Your task to perform on an android device: clear all cookies in the chrome app Image 0: 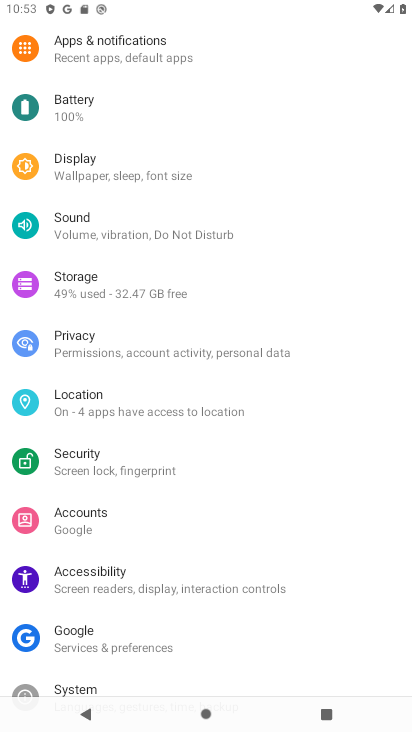
Step 0: press home button
Your task to perform on an android device: clear all cookies in the chrome app Image 1: 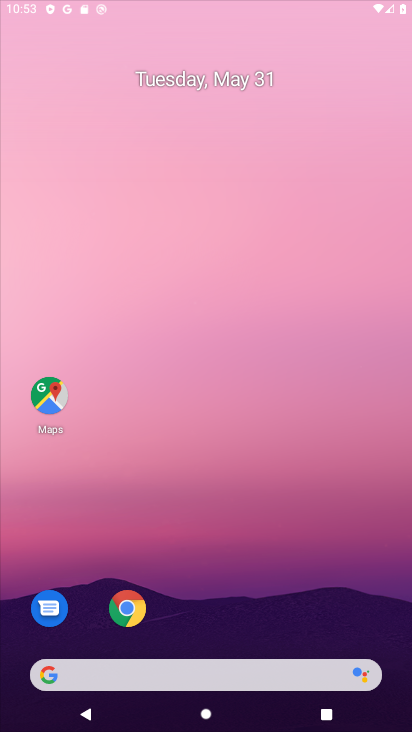
Step 1: drag from (281, 618) to (358, 85)
Your task to perform on an android device: clear all cookies in the chrome app Image 2: 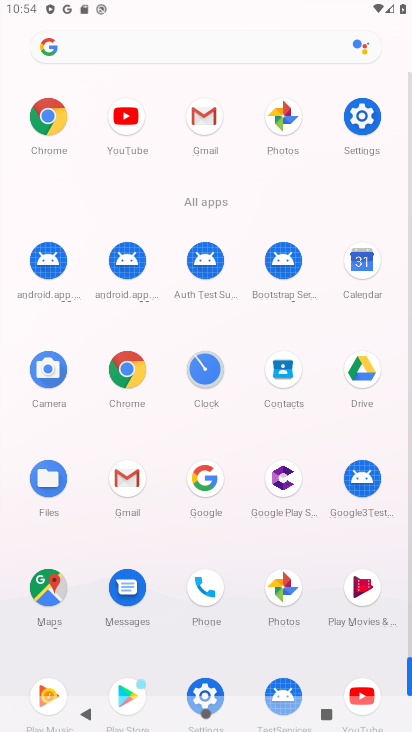
Step 2: click (54, 121)
Your task to perform on an android device: clear all cookies in the chrome app Image 3: 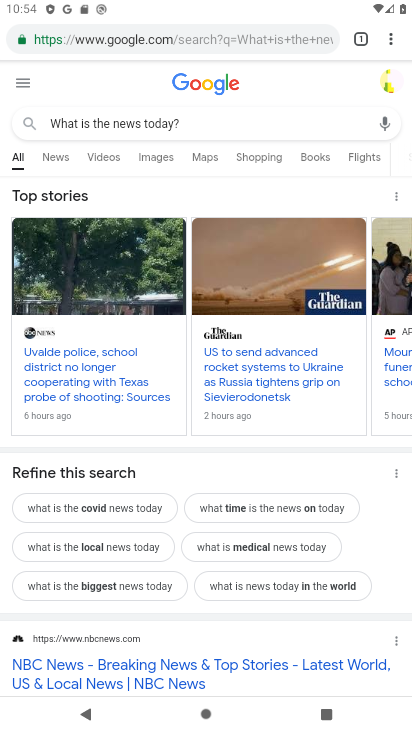
Step 3: drag from (379, 46) to (284, 431)
Your task to perform on an android device: clear all cookies in the chrome app Image 4: 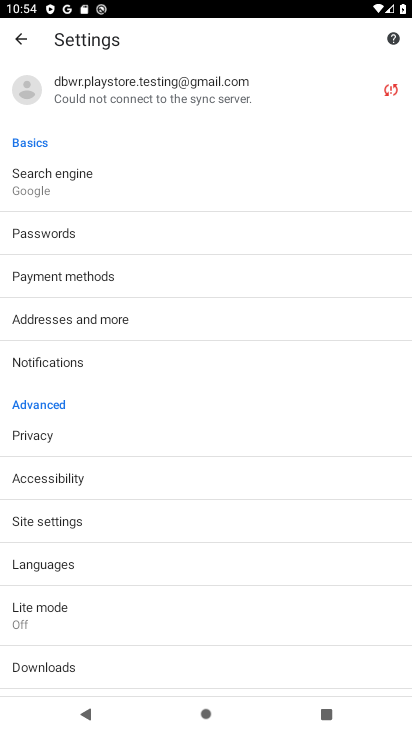
Step 4: click (210, 438)
Your task to perform on an android device: clear all cookies in the chrome app Image 5: 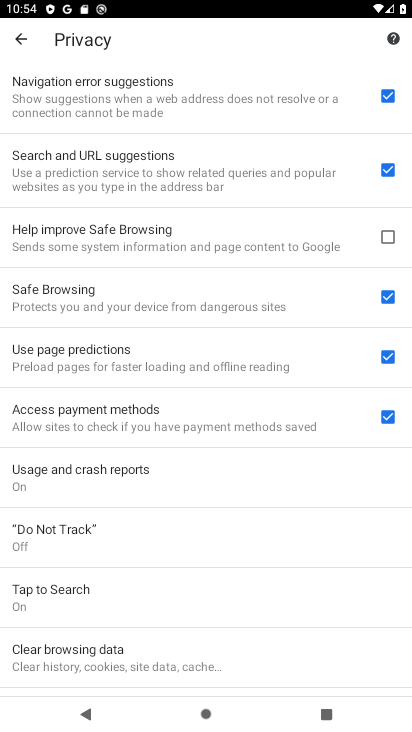
Step 5: click (203, 650)
Your task to perform on an android device: clear all cookies in the chrome app Image 6: 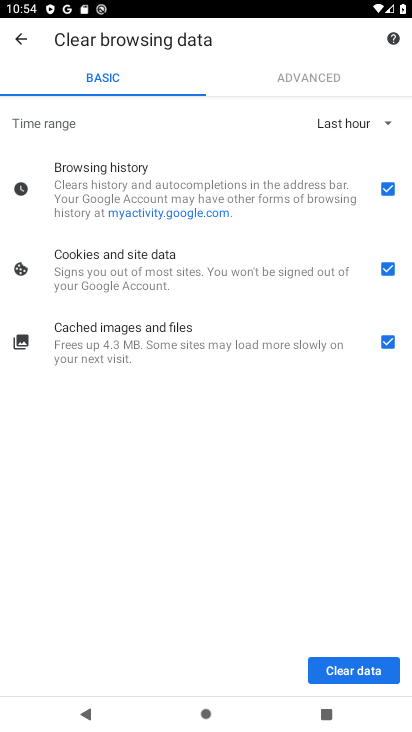
Step 6: click (329, 665)
Your task to perform on an android device: clear all cookies in the chrome app Image 7: 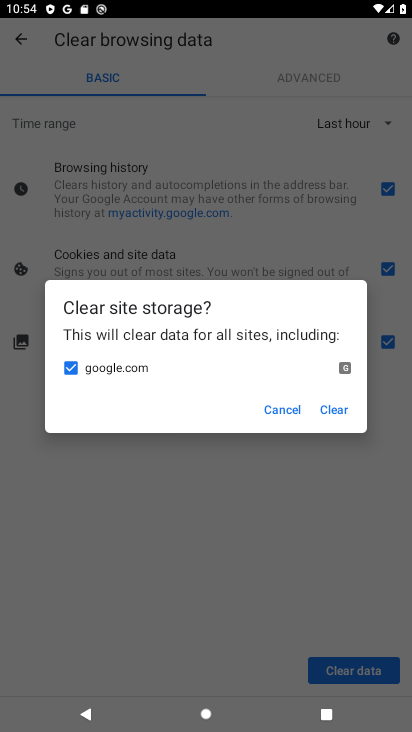
Step 7: click (333, 408)
Your task to perform on an android device: clear all cookies in the chrome app Image 8: 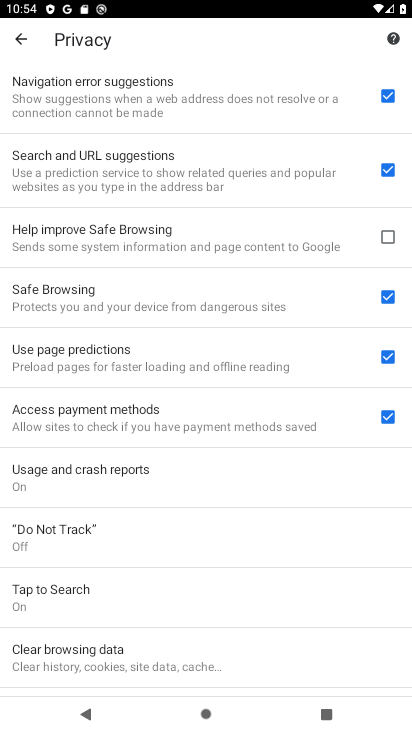
Step 8: task complete